Your task to perform on an android device: open app "Messenger Lite" Image 0: 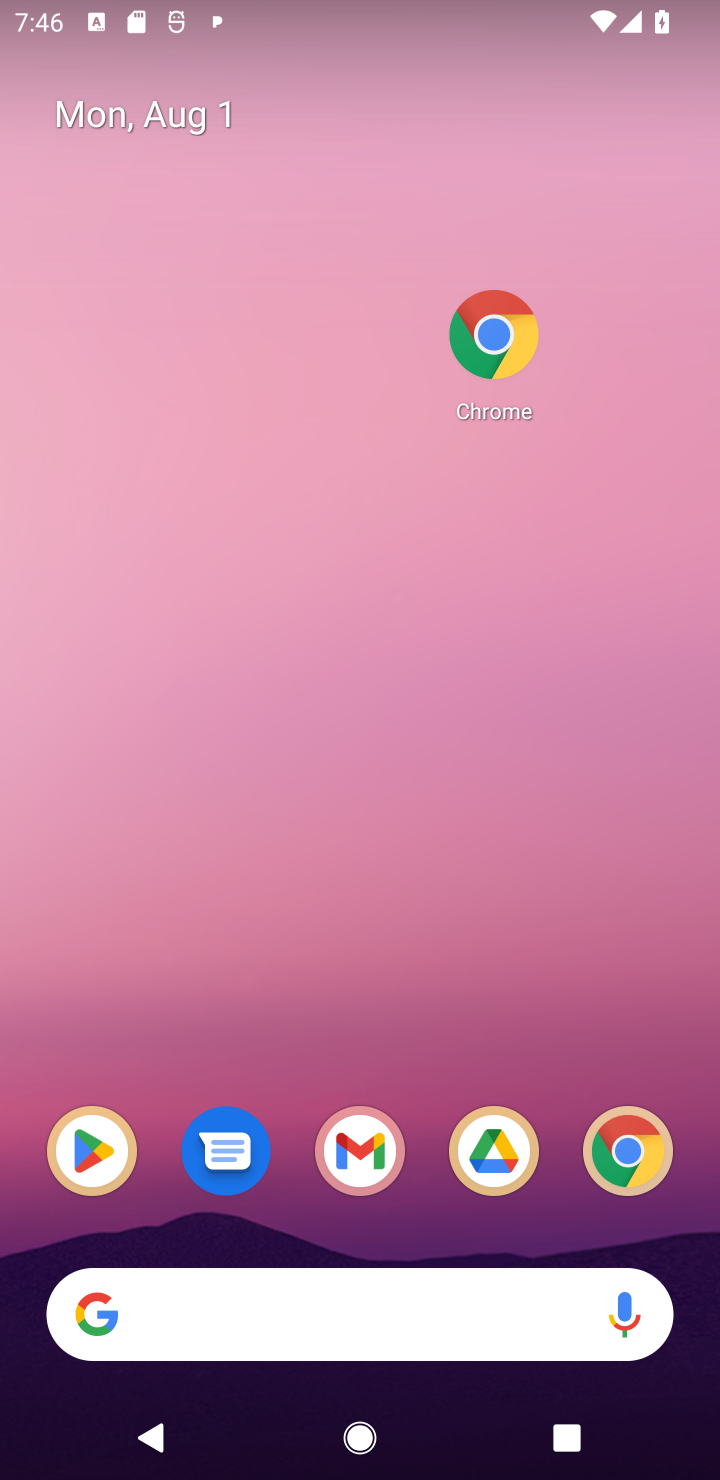
Step 0: click (86, 1151)
Your task to perform on an android device: open app "Messenger Lite" Image 1: 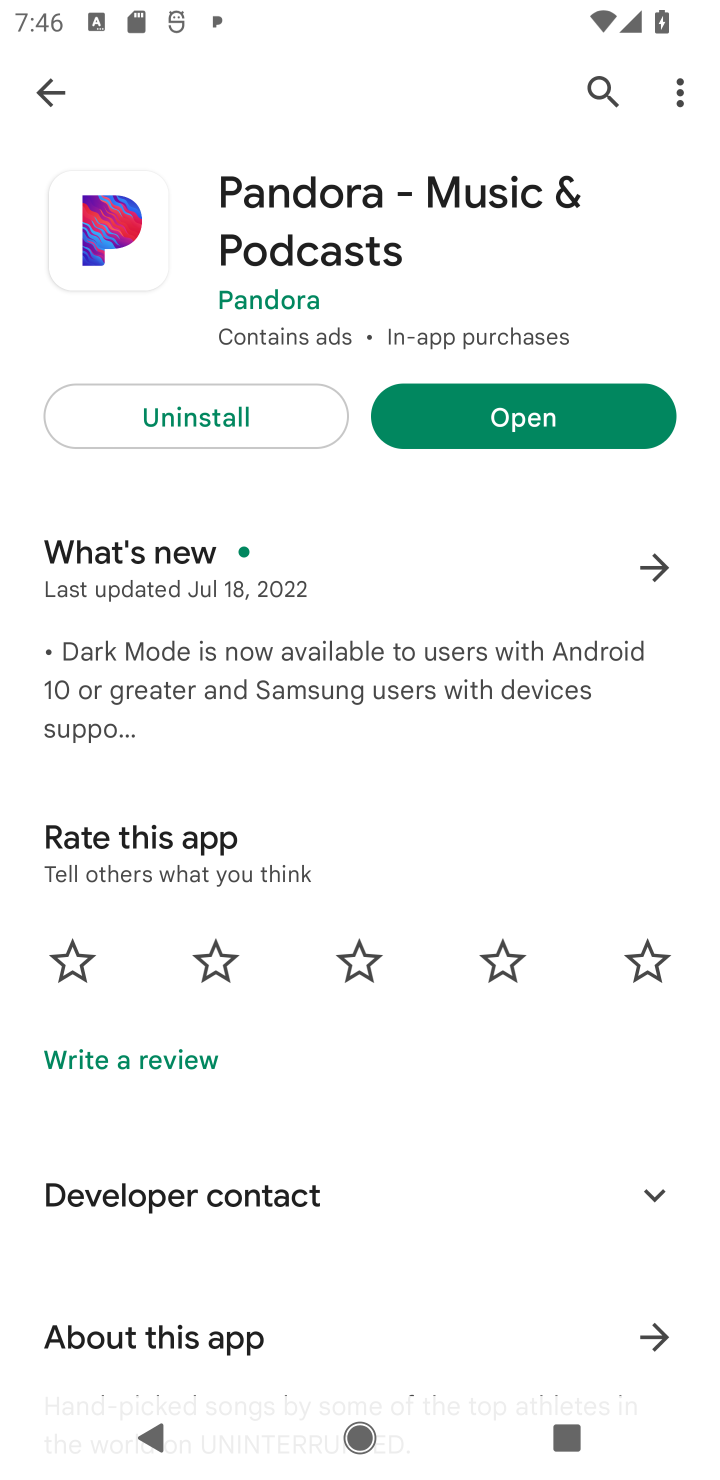
Step 1: click (600, 99)
Your task to perform on an android device: open app "Messenger Lite" Image 2: 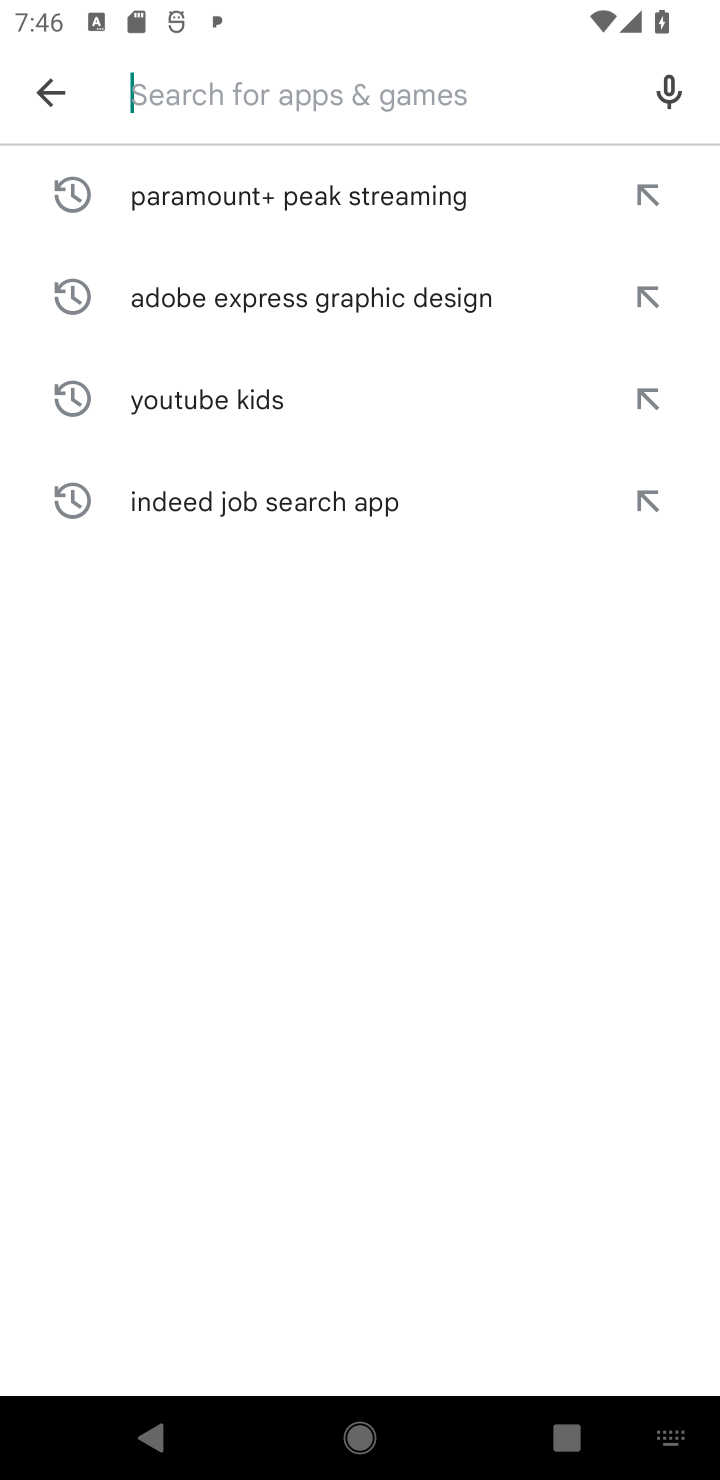
Step 2: click (448, 101)
Your task to perform on an android device: open app "Messenger Lite" Image 3: 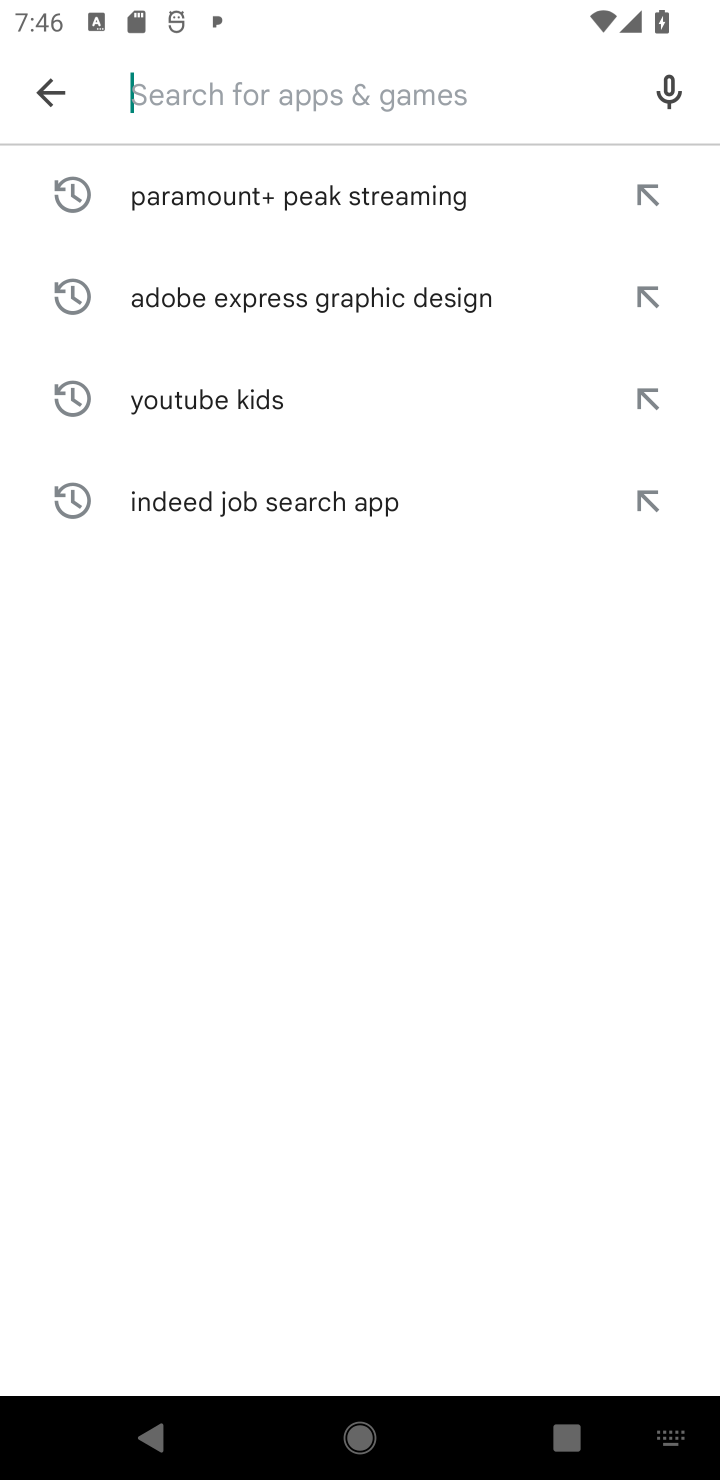
Step 3: type "Messenger Lite"
Your task to perform on an android device: open app "Messenger Lite" Image 4: 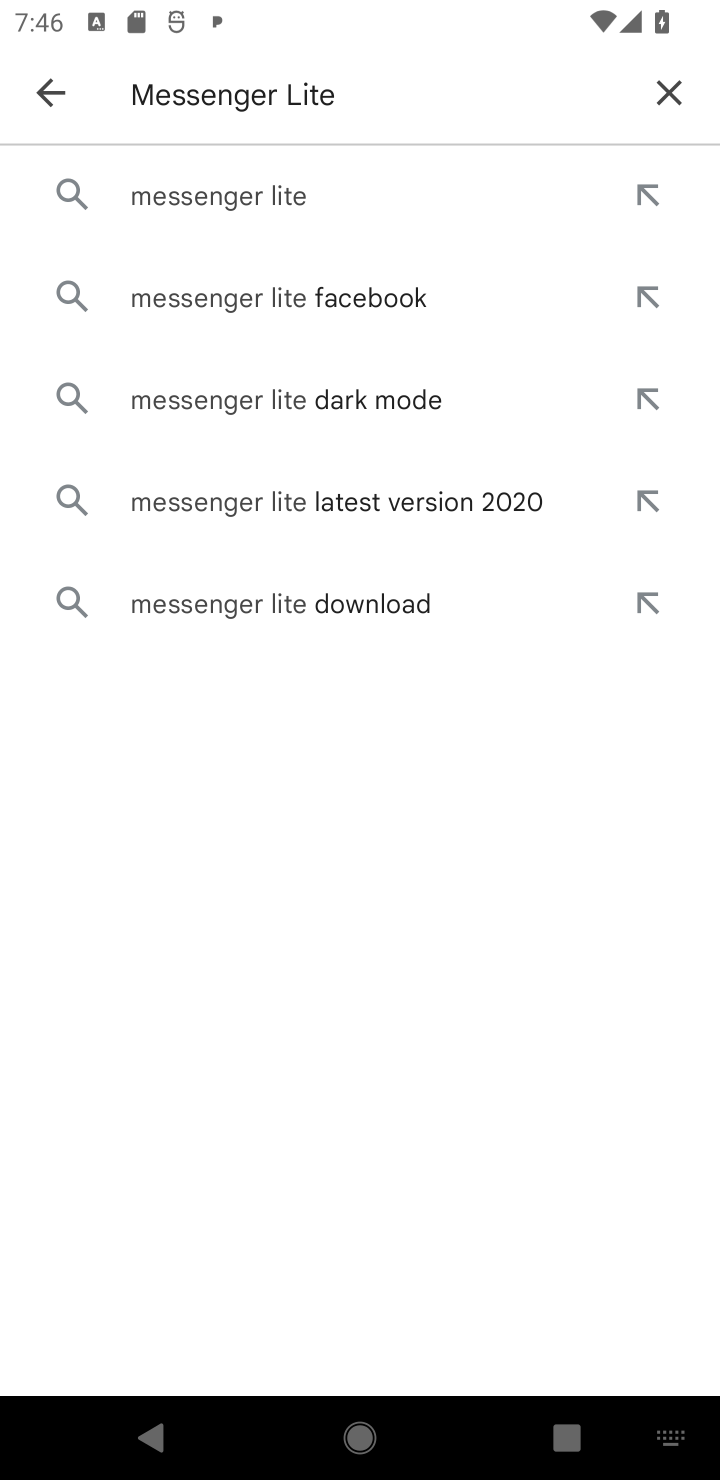
Step 4: click (217, 203)
Your task to perform on an android device: open app "Messenger Lite" Image 5: 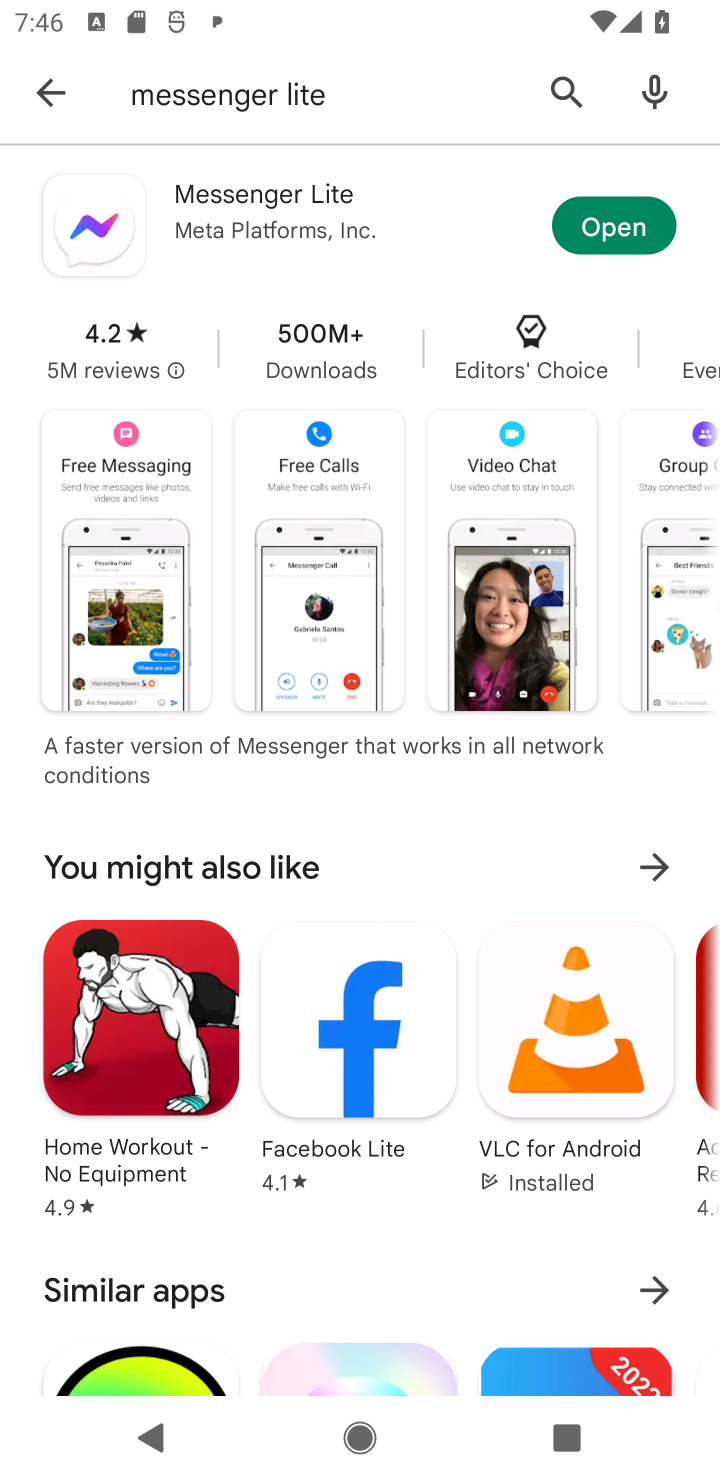
Step 5: click (597, 222)
Your task to perform on an android device: open app "Messenger Lite" Image 6: 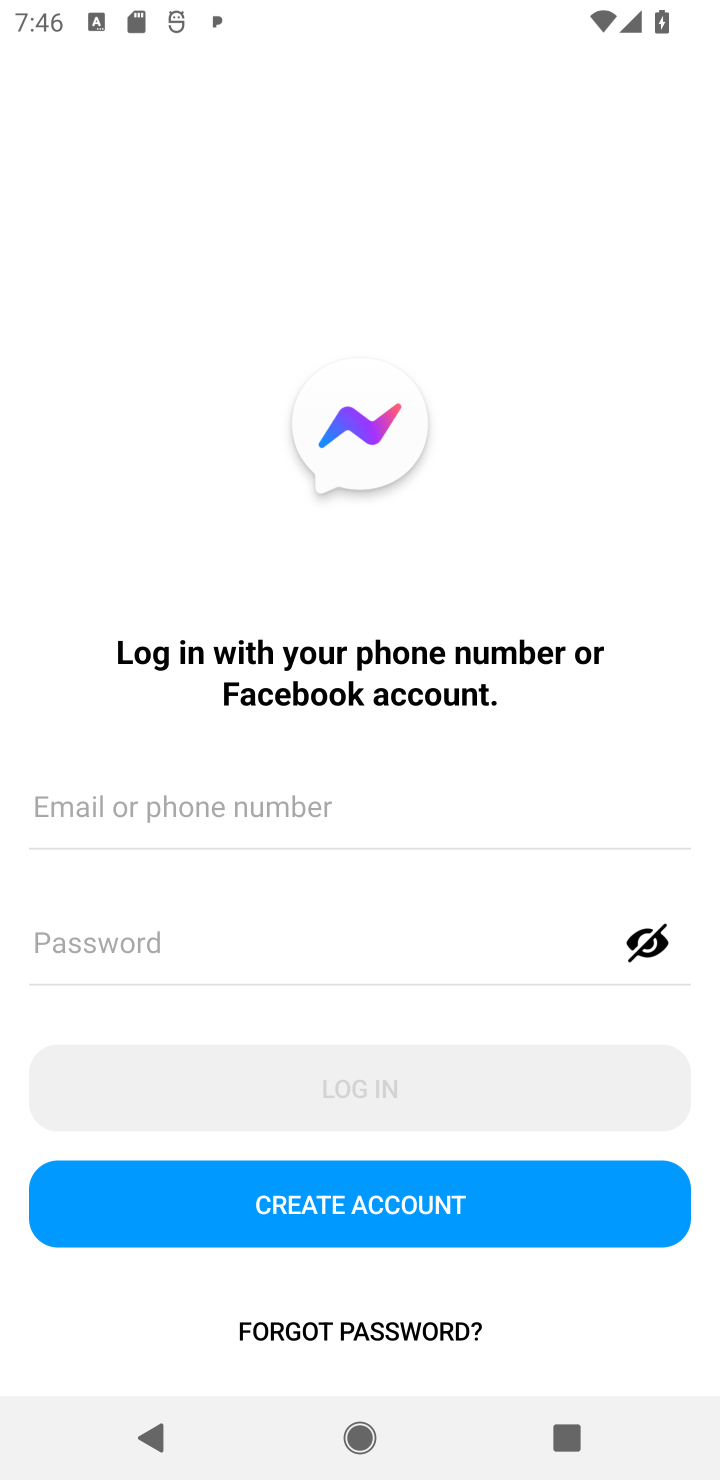
Step 6: task complete